Your task to perform on an android device: Open notification settings Image 0: 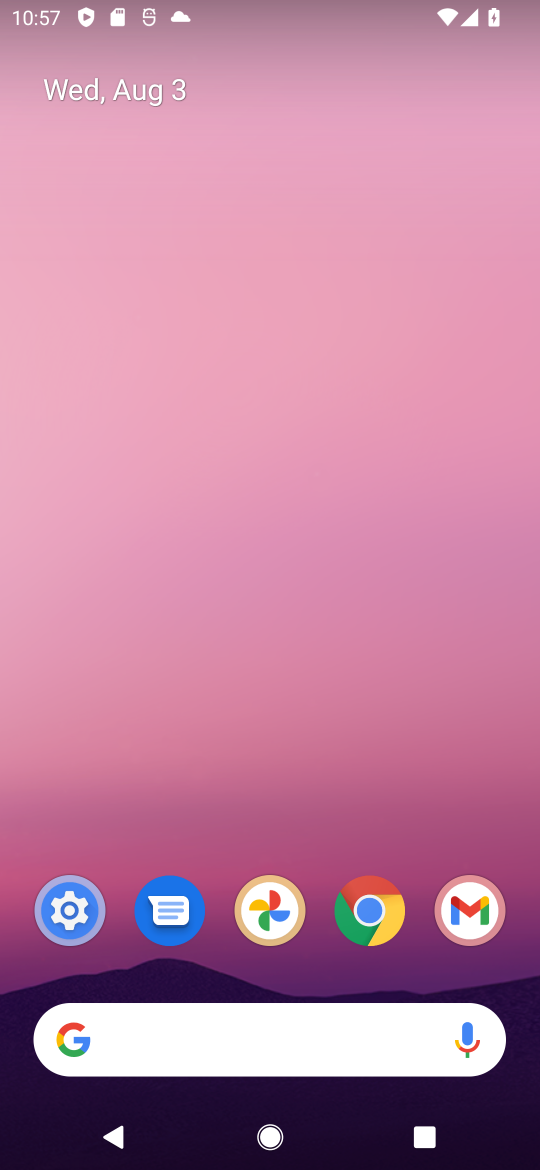
Step 0: press home button
Your task to perform on an android device: Open notification settings Image 1: 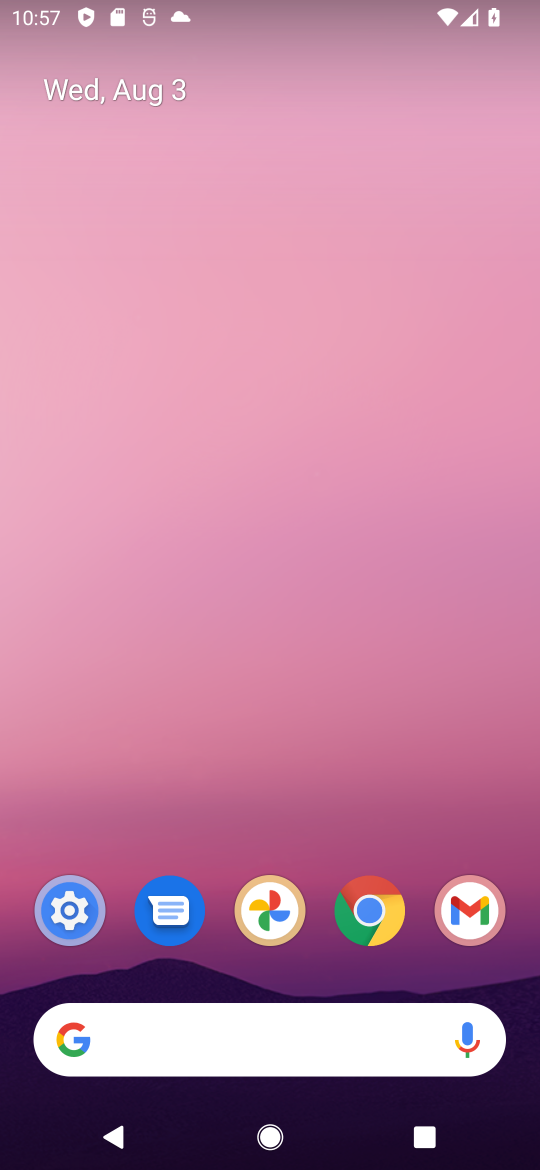
Step 1: press home button
Your task to perform on an android device: Open notification settings Image 2: 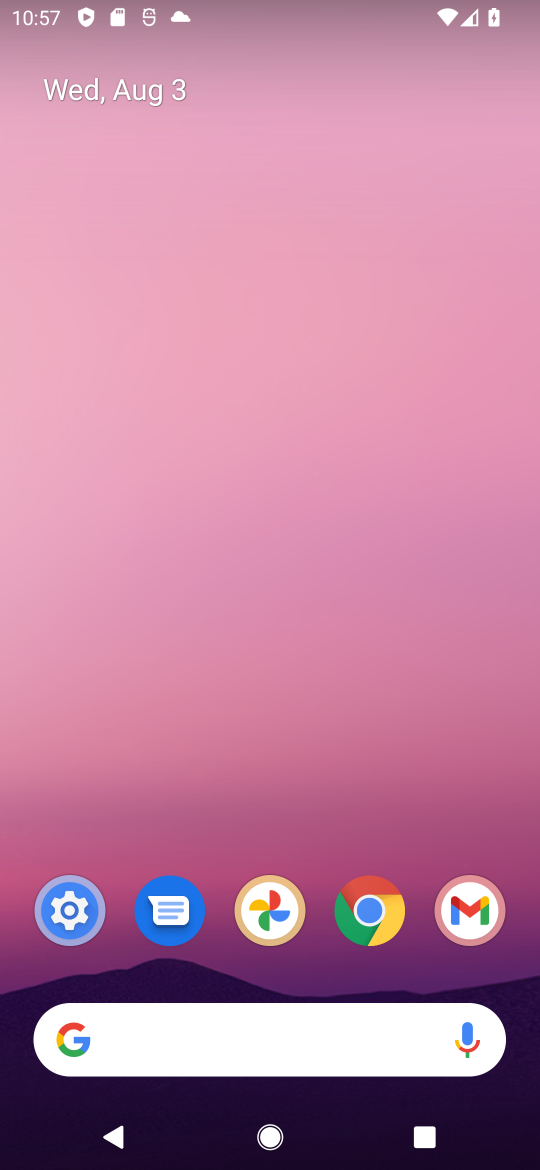
Step 2: drag from (319, 877) to (381, 41)
Your task to perform on an android device: Open notification settings Image 3: 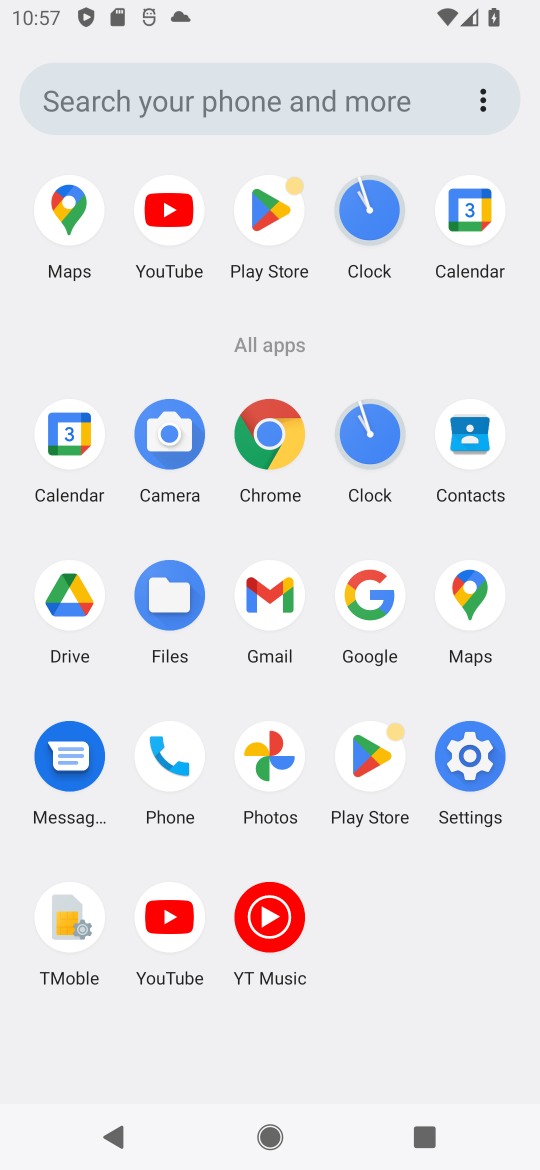
Step 3: click (470, 757)
Your task to perform on an android device: Open notification settings Image 4: 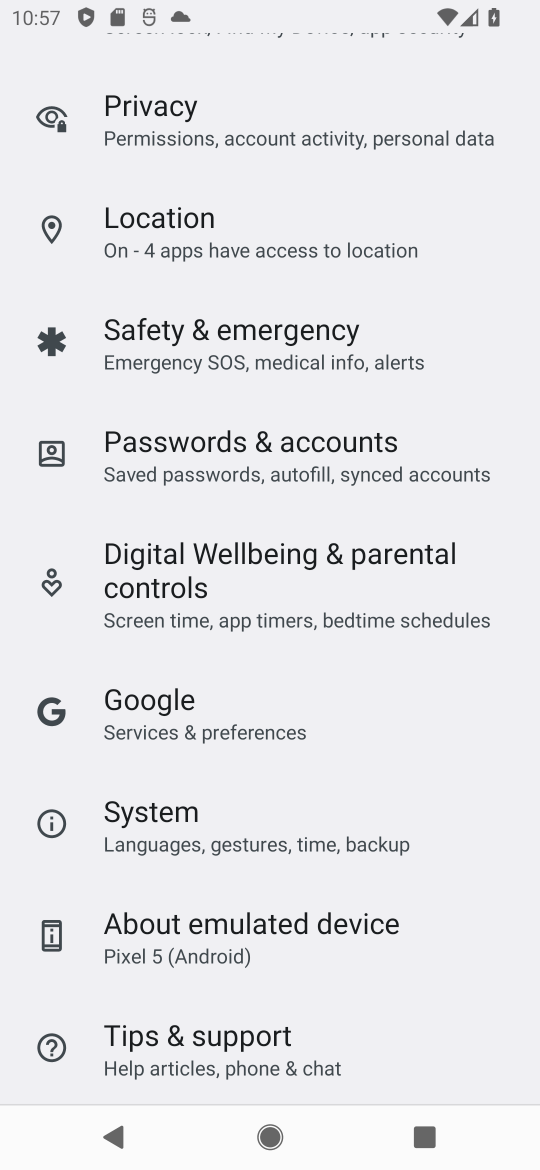
Step 4: drag from (201, 180) to (231, 1087)
Your task to perform on an android device: Open notification settings Image 5: 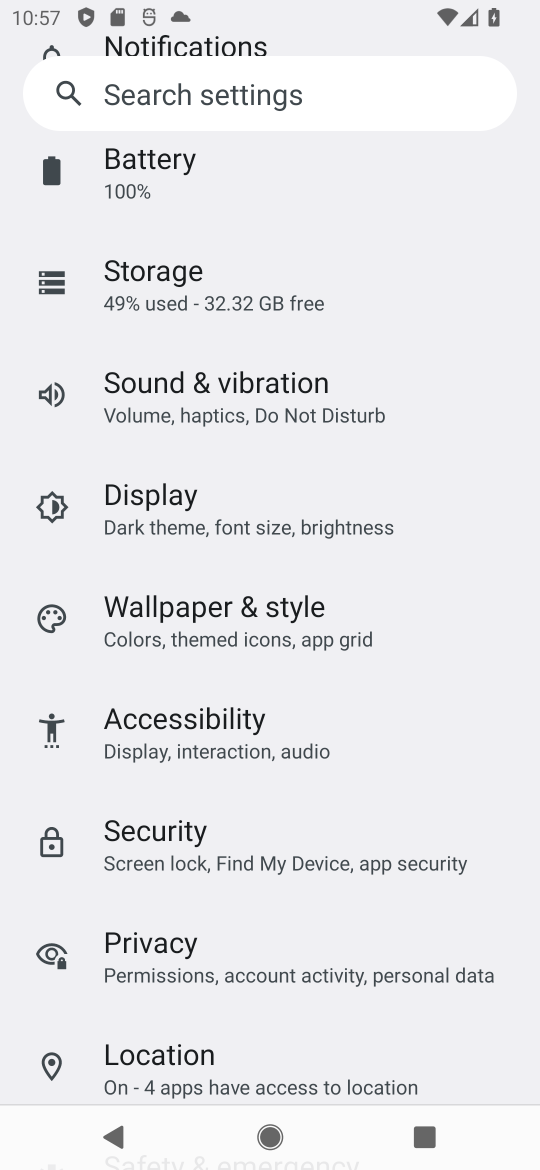
Step 5: drag from (217, 189) to (238, 806)
Your task to perform on an android device: Open notification settings Image 6: 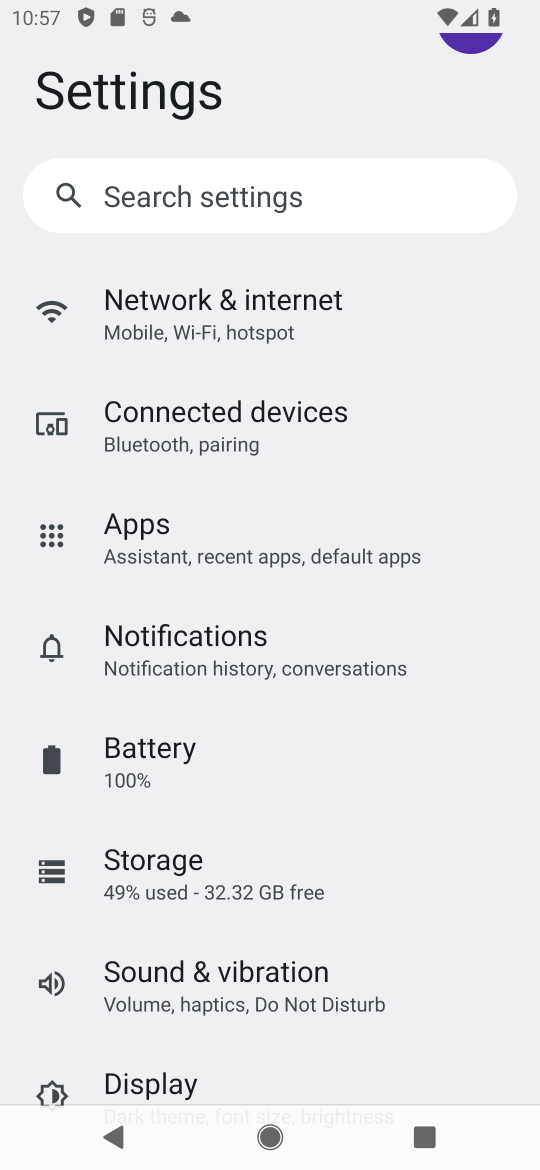
Step 6: click (279, 642)
Your task to perform on an android device: Open notification settings Image 7: 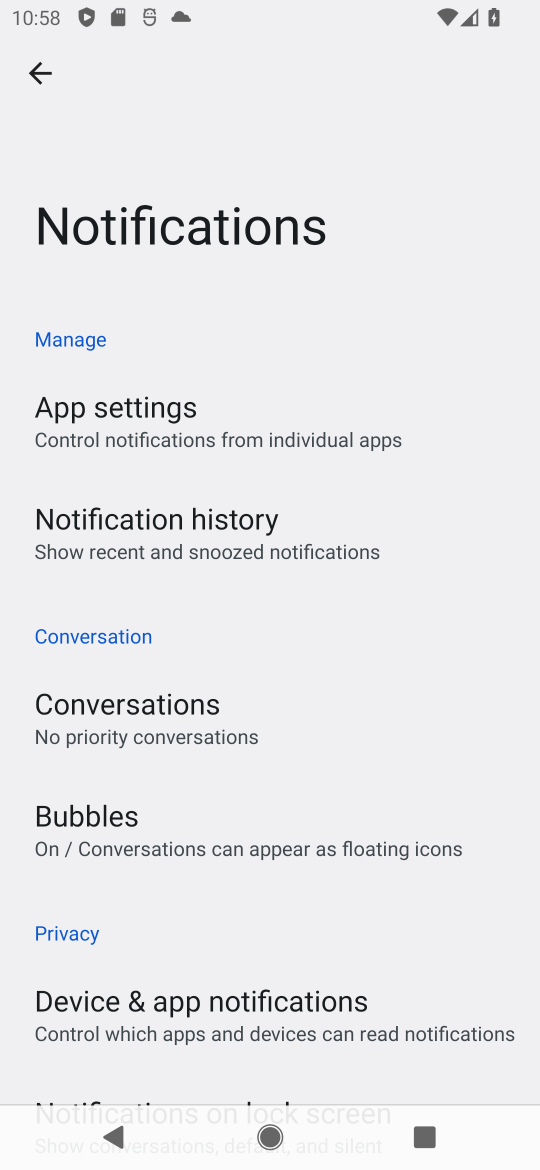
Step 7: task complete